Your task to perform on an android device: change text size in settings app Image 0: 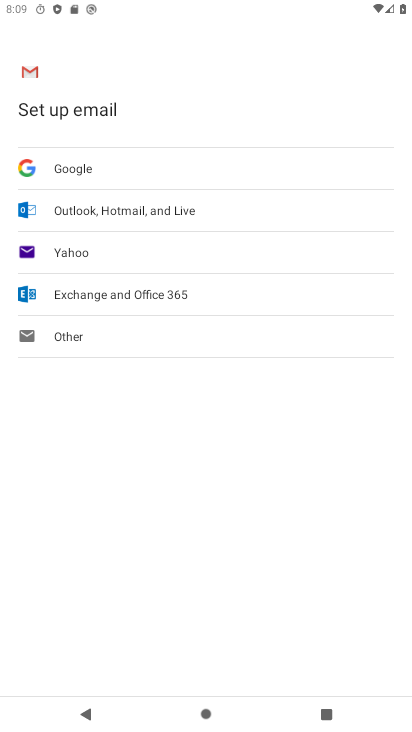
Step 0: press home button
Your task to perform on an android device: change text size in settings app Image 1: 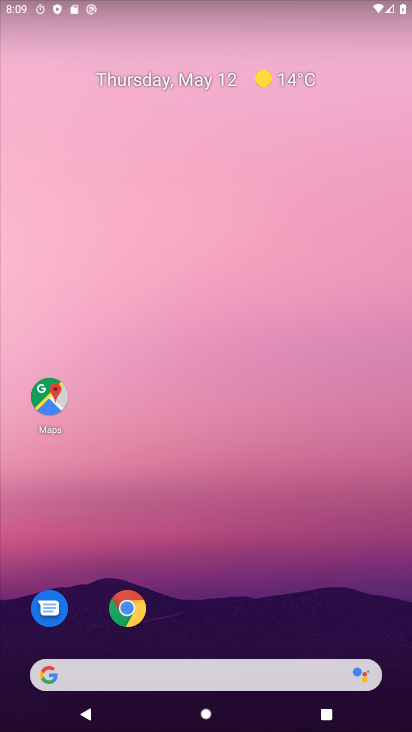
Step 1: drag from (272, 596) to (293, 94)
Your task to perform on an android device: change text size in settings app Image 2: 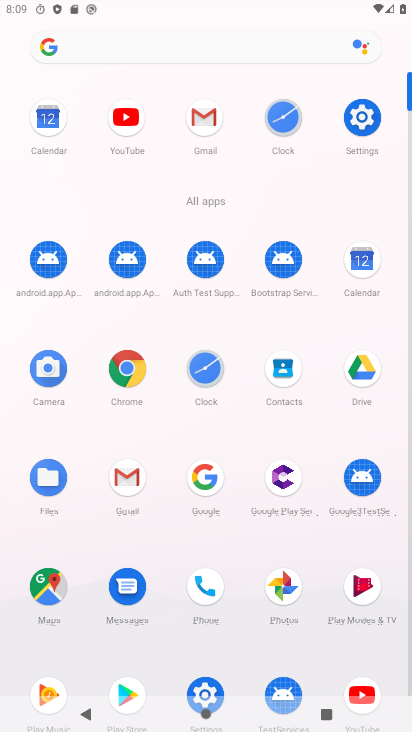
Step 2: click (356, 128)
Your task to perform on an android device: change text size in settings app Image 3: 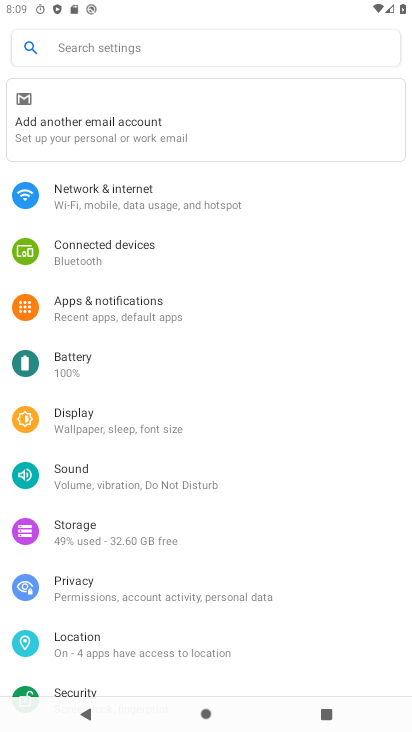
Step 3: click (146, 423)
Your task to perform on an android device: change text size in settings app Image 4: 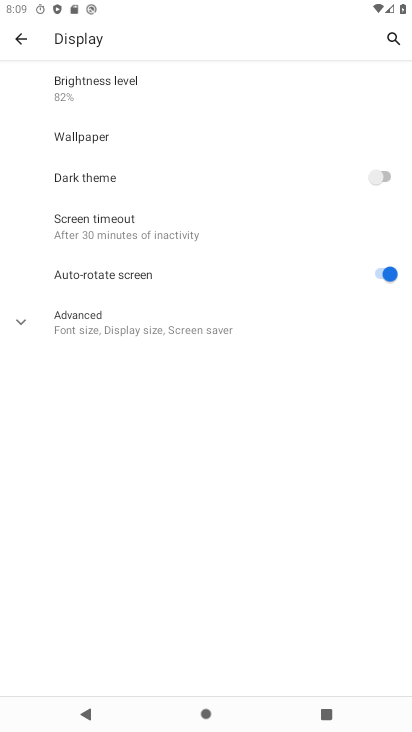
Step 4: click (157, 328)
Your task to perform on an android device: change text size in settings app Image 5: 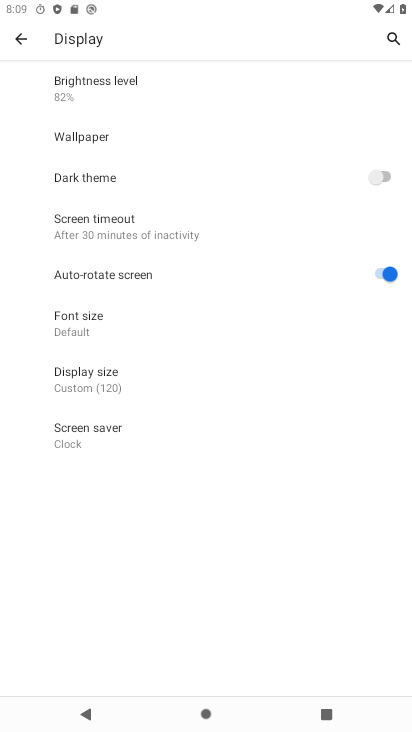
Step 5: click (131, 316)
Your task to perform on an android device: change text size in settings app Image 6: 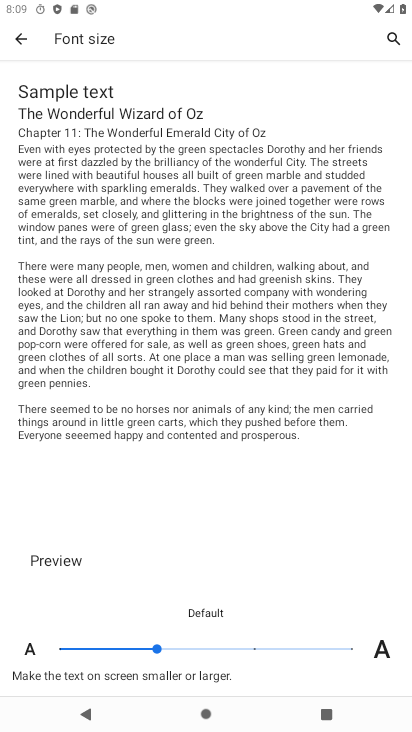
Step 6: click (251, 643)
Your task to perform on an android device: change text size in settings app Image 7: 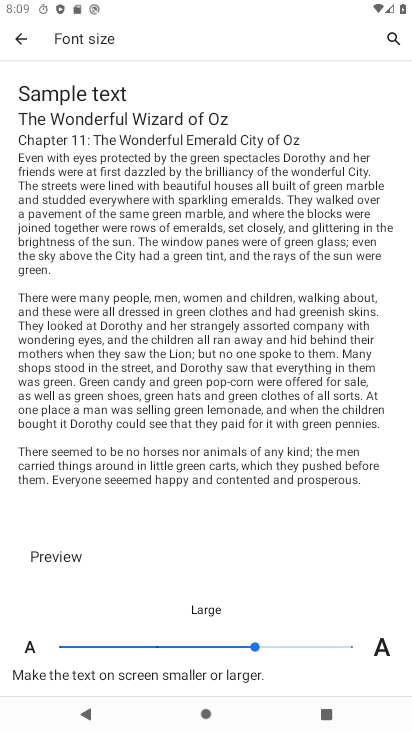
Step 7: task complete